Your task to perform on an android device: allow notifications from all sites in the chrome app Image 0: 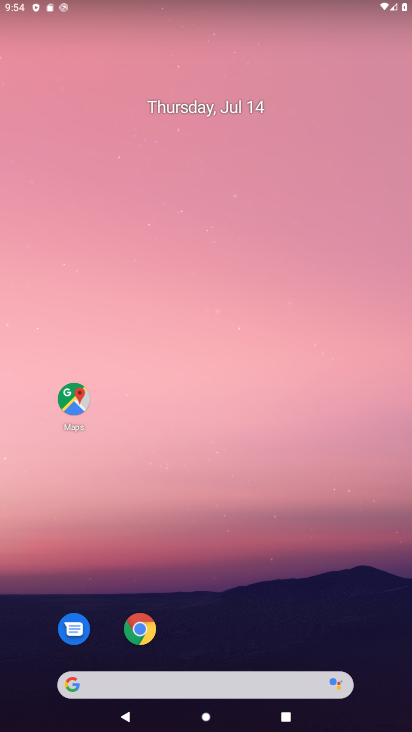
Step 0: click (234, 144)
Your task to perform on an android device: allow notifications from all sites in the chrome app Image 1: 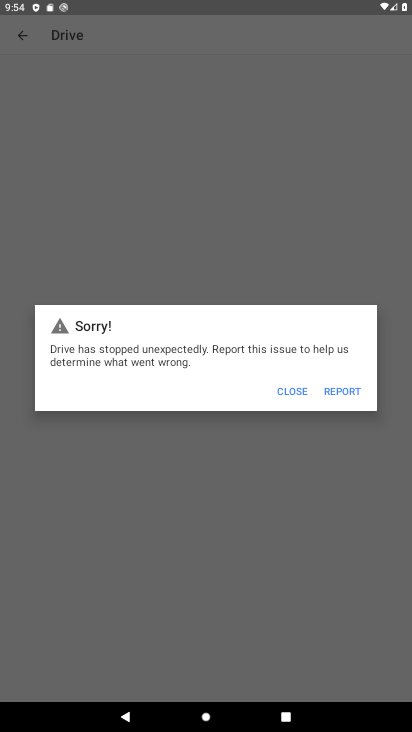
Step 1: press home button
Your task to perform on an android device: allow notifications from all sites in the chrome app Image 2: 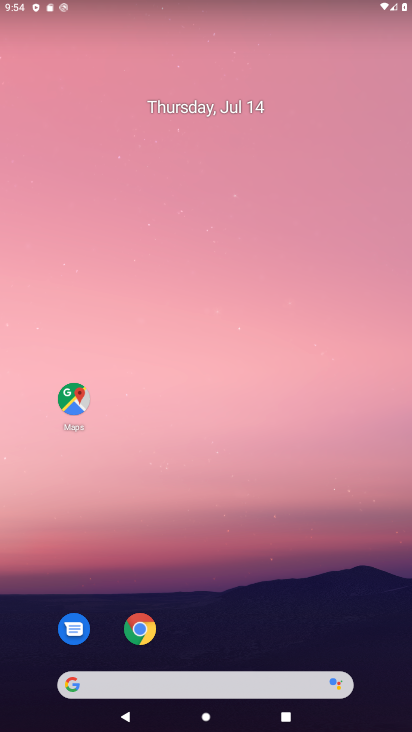
Step 2: click (138, 637)
Your task to perform on an android device: allow notifications from all sites in the chrome app Image 3: 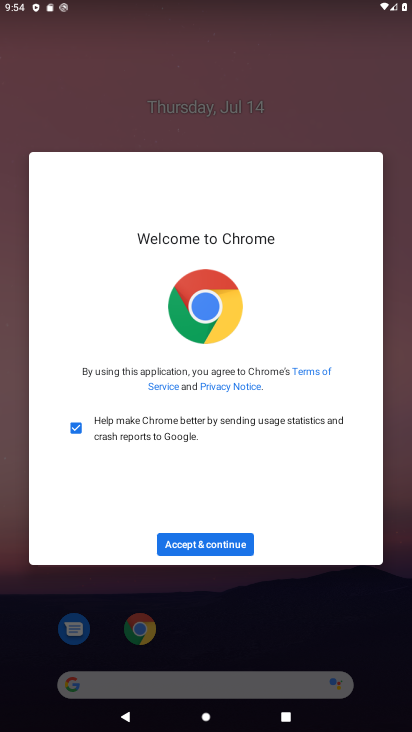
Step 3: click (209, 546)
Your task to perform on an android device: allow notifications from all sites in the chrome app Image 4: 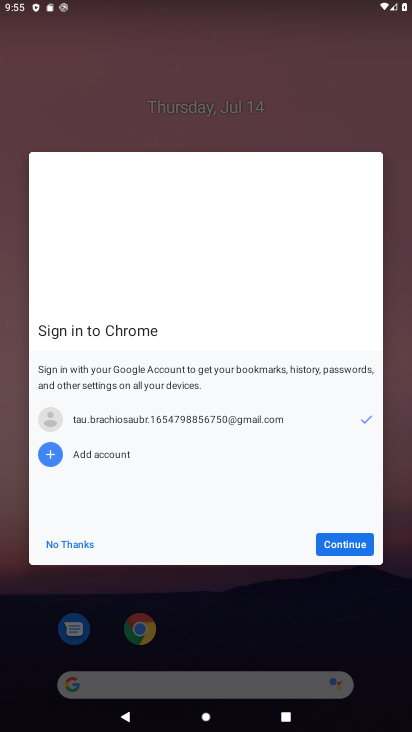
Step 4: click (338, 544)
Your task to perform on an android device: allow notifications from all sites in the chrome app Image 5: 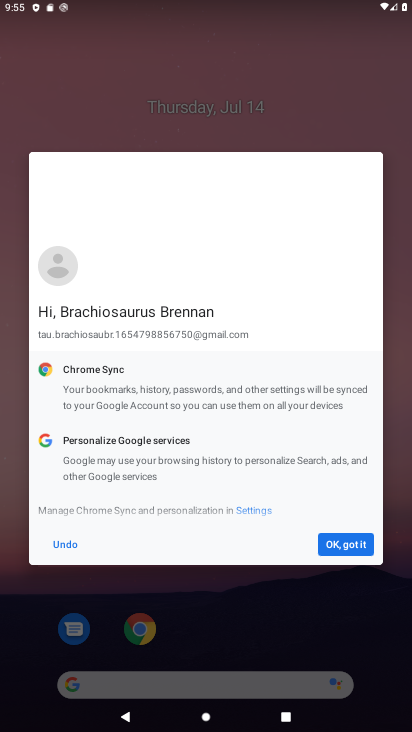
Step 5: click (338, 544)
Your task to perform on an android device: allow notifications from all sites in the chrome app Image 6: 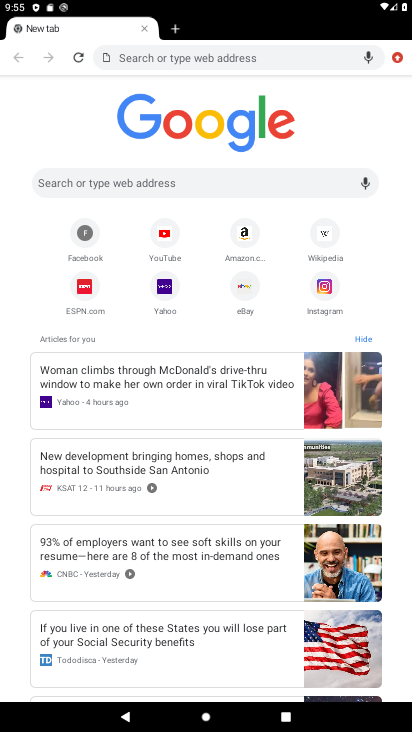
Step 6: click (398, 51)
Your task to perform on an android device: allow notifications from all sites in the chrome app Image 7: 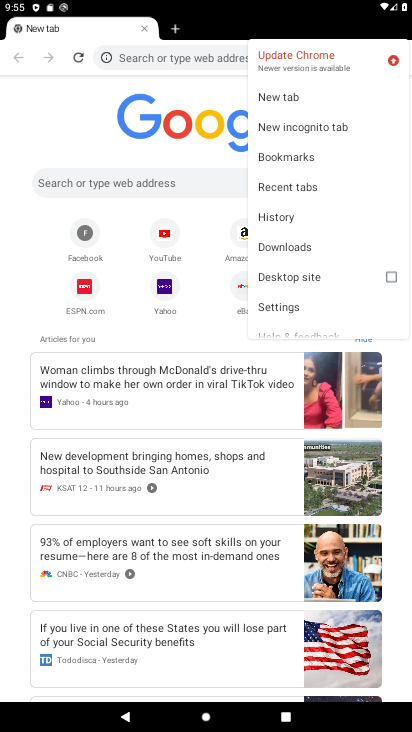
Step 7: click (283, 301)
Your task to perform on an android device: allow notifications from all sites in the chrome app Image 8: 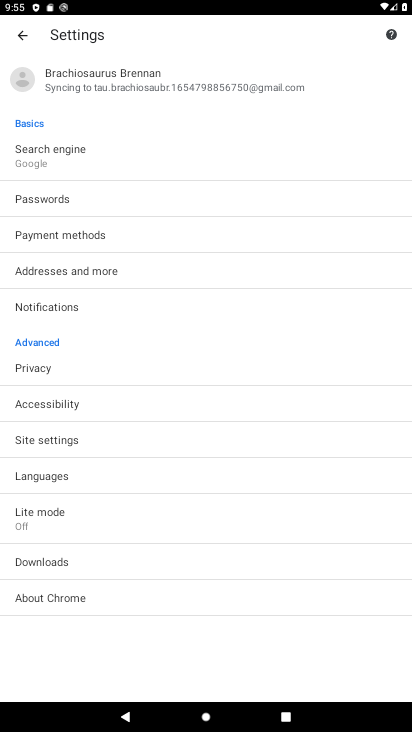
Step 8: click (61, 307)
Your task to perform on an android device: allow notifications from all sites in the chrome app Image 9: 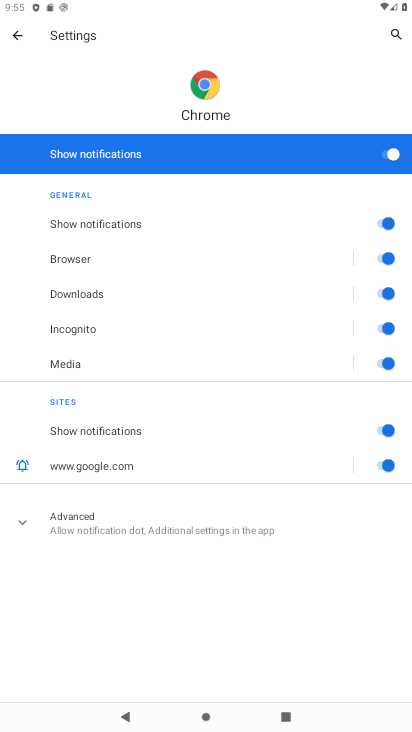
Step 9: task complete